Your task to perform on an android device: see creations saved in the google photos Image 0: 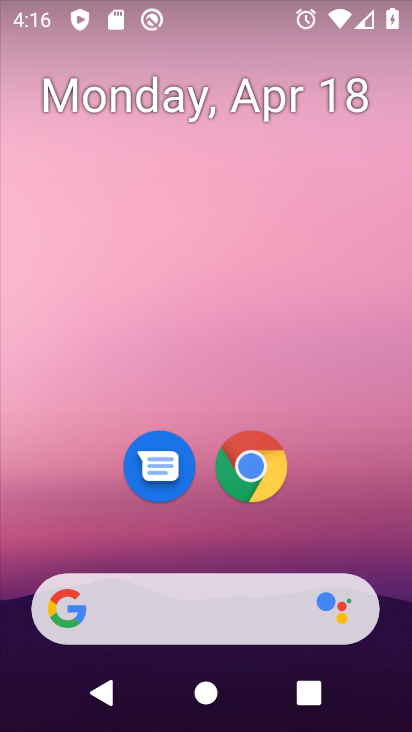
Step 0: drag from (353, 522) to (219, 30)
Your task to perform on an android device: see creations saved in the google photos Image 1: 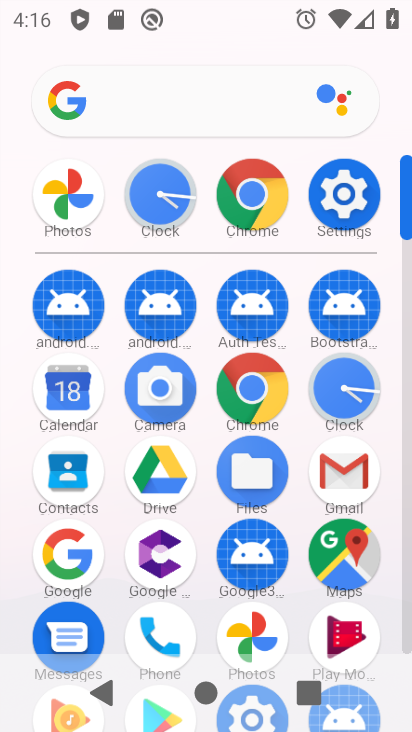
Step 1: drag from (9, 593) to (9, 317)
Your task to perform on an android device: see creations saved in the google photos Image 2: 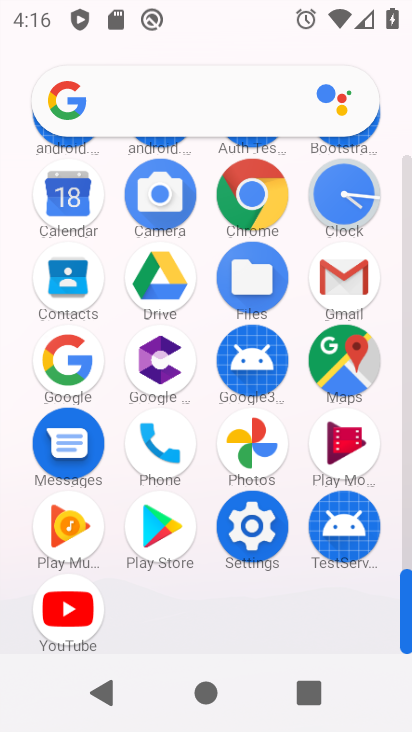
Step 2: click (252, 434)
Your task to perform on an android device: see creations saved in the google photos Image 3: 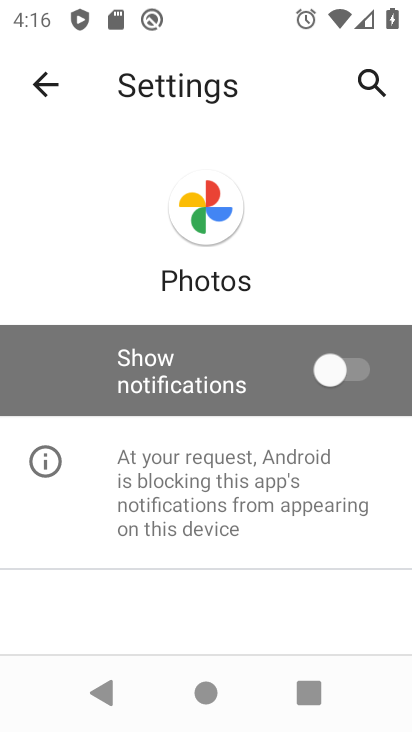
Step 3: click (35, 85)
Your task to perform on an android device: see creations saved in the google photos Image 4: 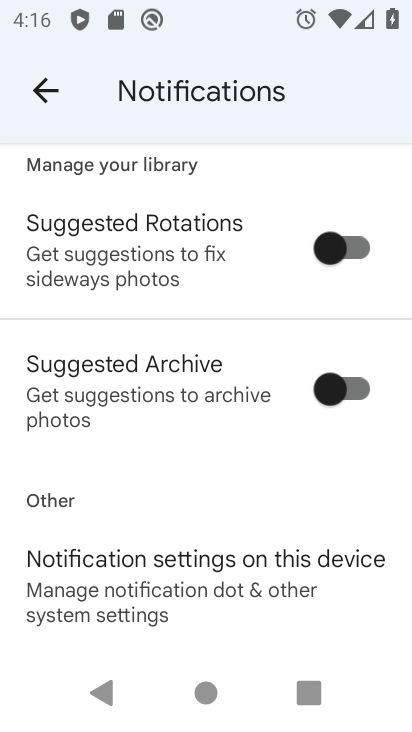
Step 4: click (33, 106)
Your task to perform on an android device: see creations saved in the google photos Image 5: 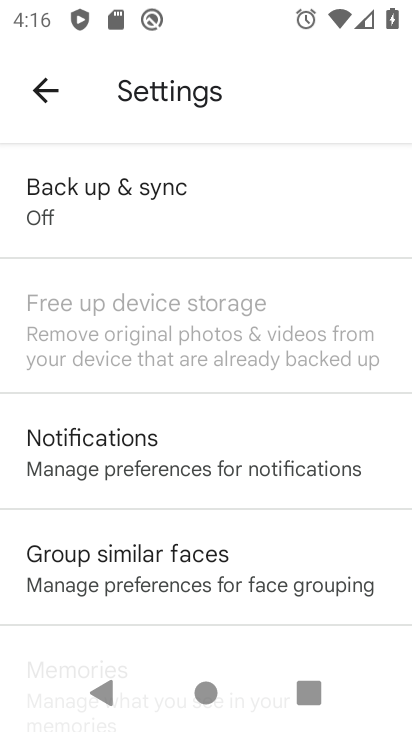
Step 5: drag from (258, 547) to (240, 233)
Your task to perform on an android device: see creations saved in the google photos Image 6: 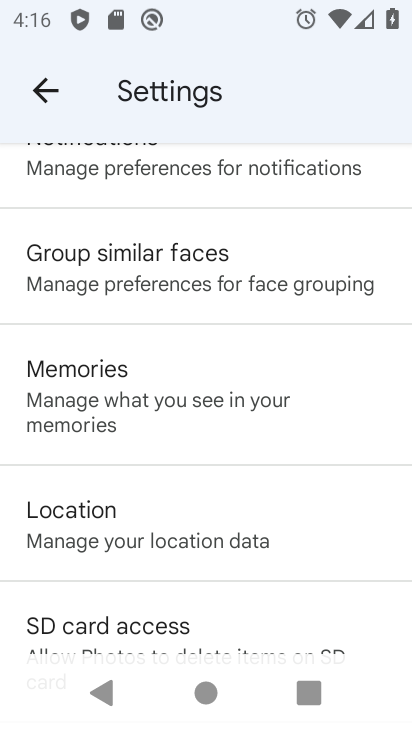
Step 6: drag from (219, 458) to (235, 151)
Your task to perform on an android device: see creations saved in the google photos Image 7: 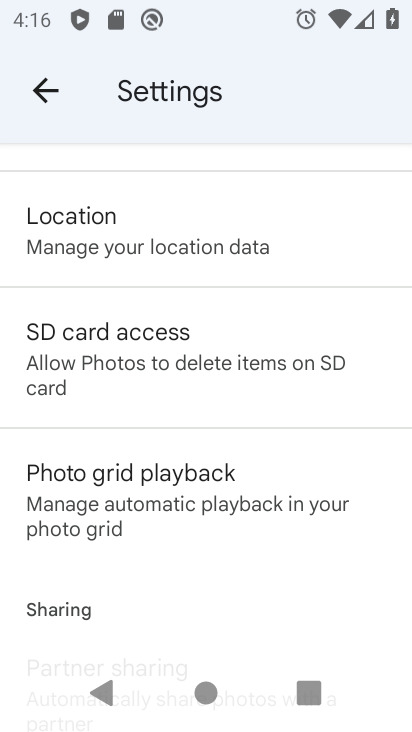
Step 7: drag from (186, 513) to (221, 207)
Your task to perform on an android device: see creations saved in the google photos Image 8: 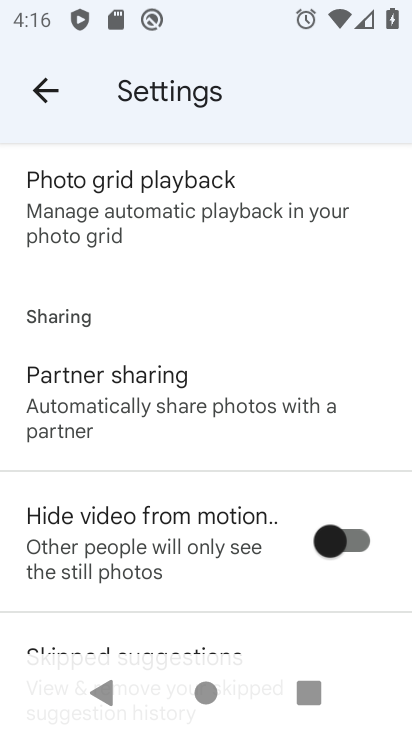
Step 8: drag from (128, 528) to (136, 193)
Your task to perform on an android device: see creations saved in the google photos Image 9: 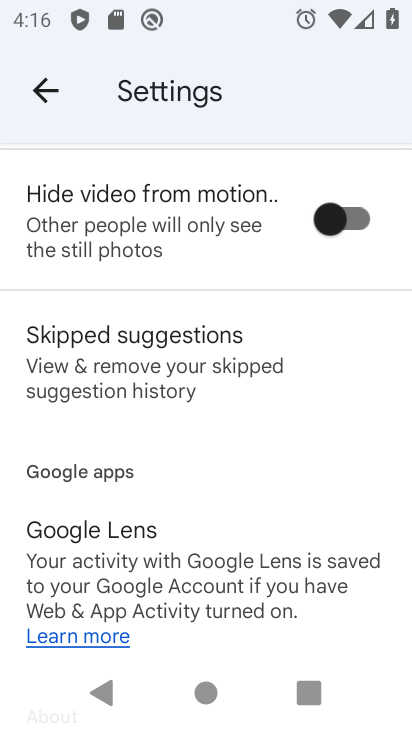
Step 9: drag from (151, 490) to (223, 157)
Your task to perform on an android device: see creations saved in the google photos Image 10: 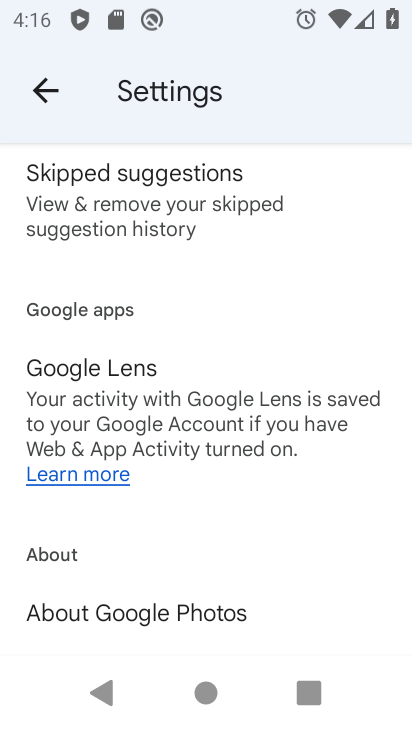
Step 10: click (27, 95)
Your task to perform on an android device: see creations saved in the google photos Image 11: 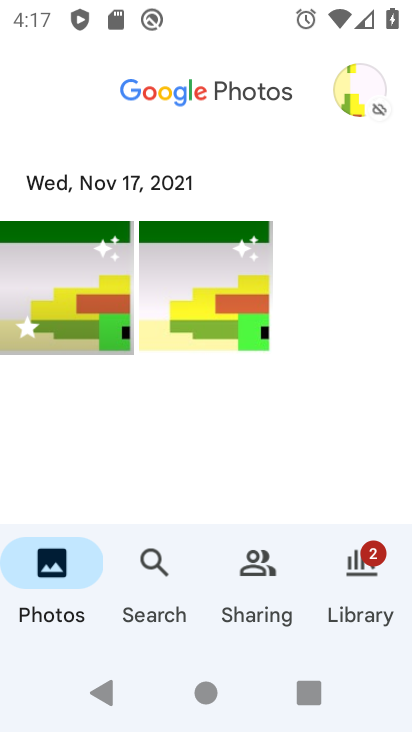
Step 11: task complete